Your task to perform on an android device: What's on my calendar tomorrow? Image 0: 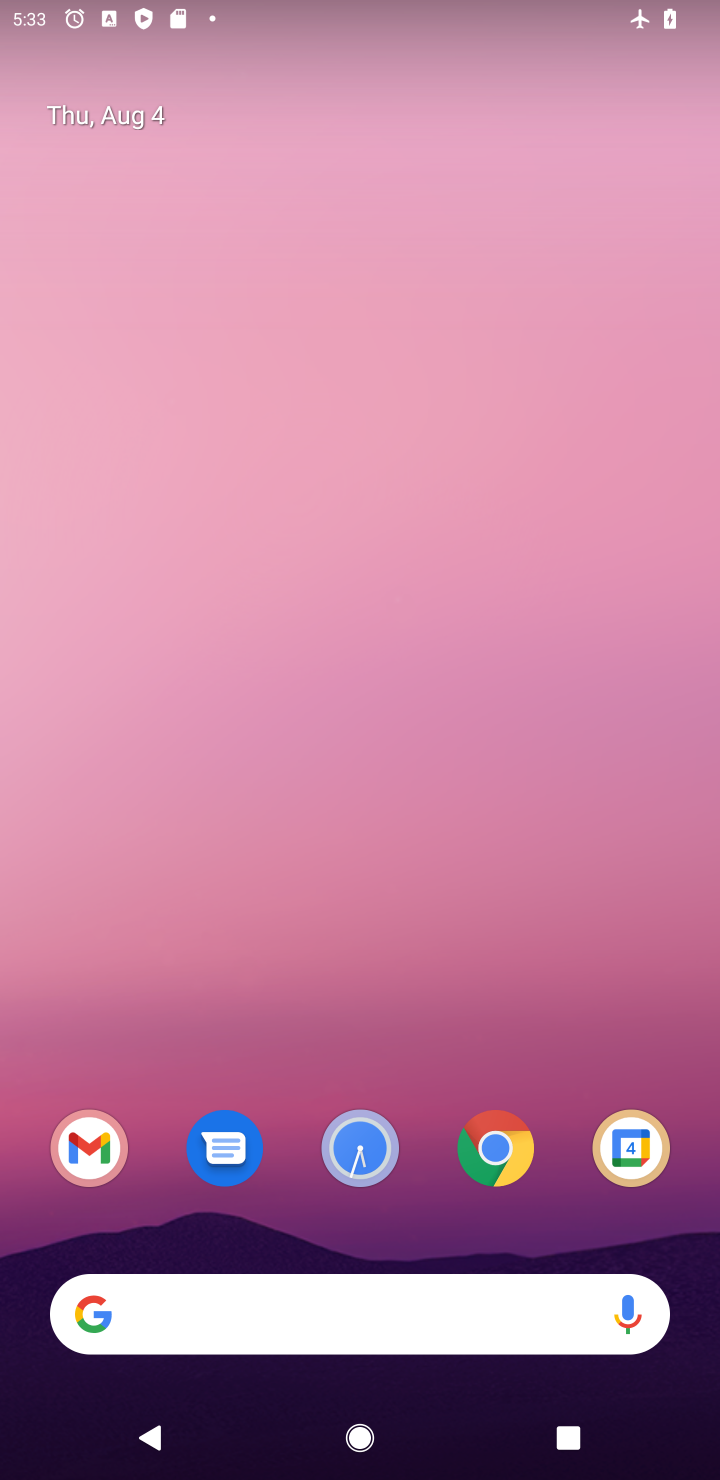
Step 0: drag from (582, 1233) to (544, 290)
Your task to perform on an android device: What's on my calendar tomorrow? Image 1: 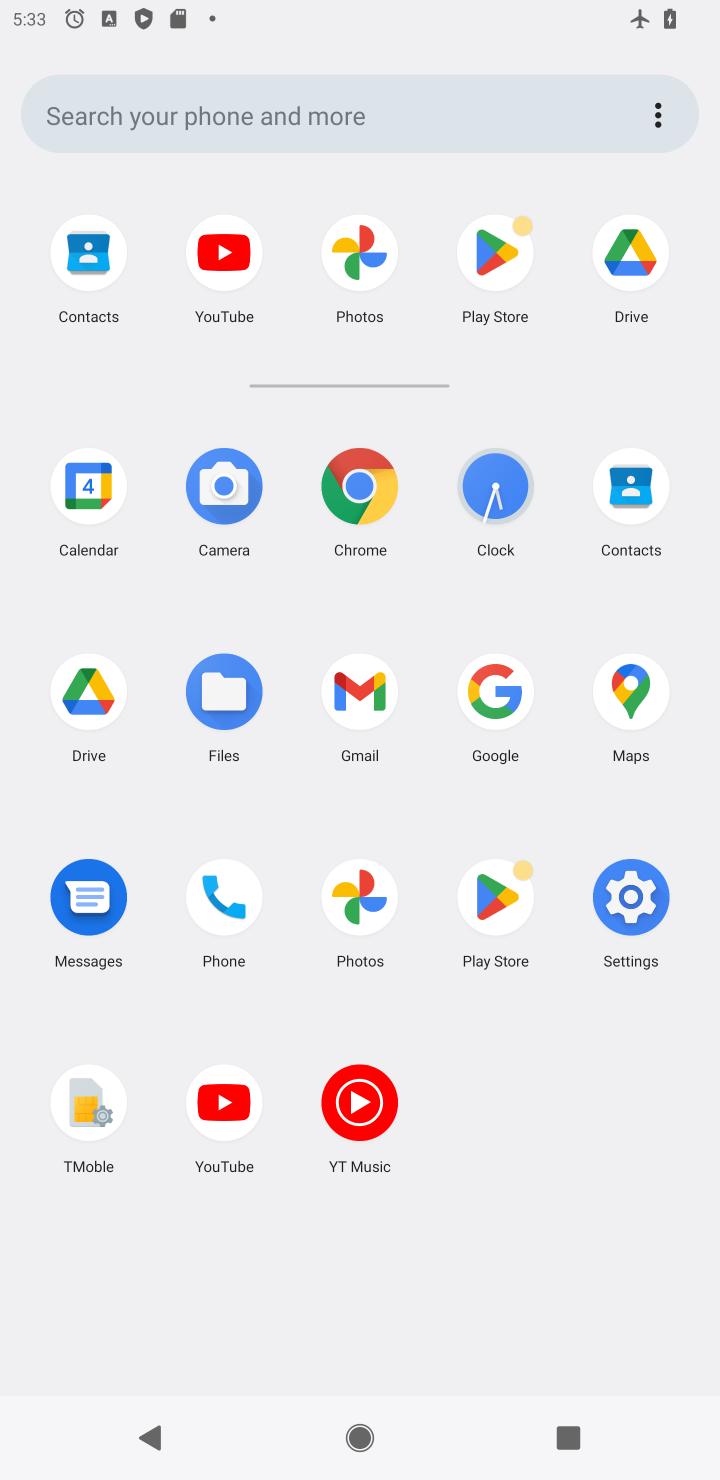
Step 1: click (86, 488)
Your task to perform on an android device: What's on my calendar tomorrow? Image 2: 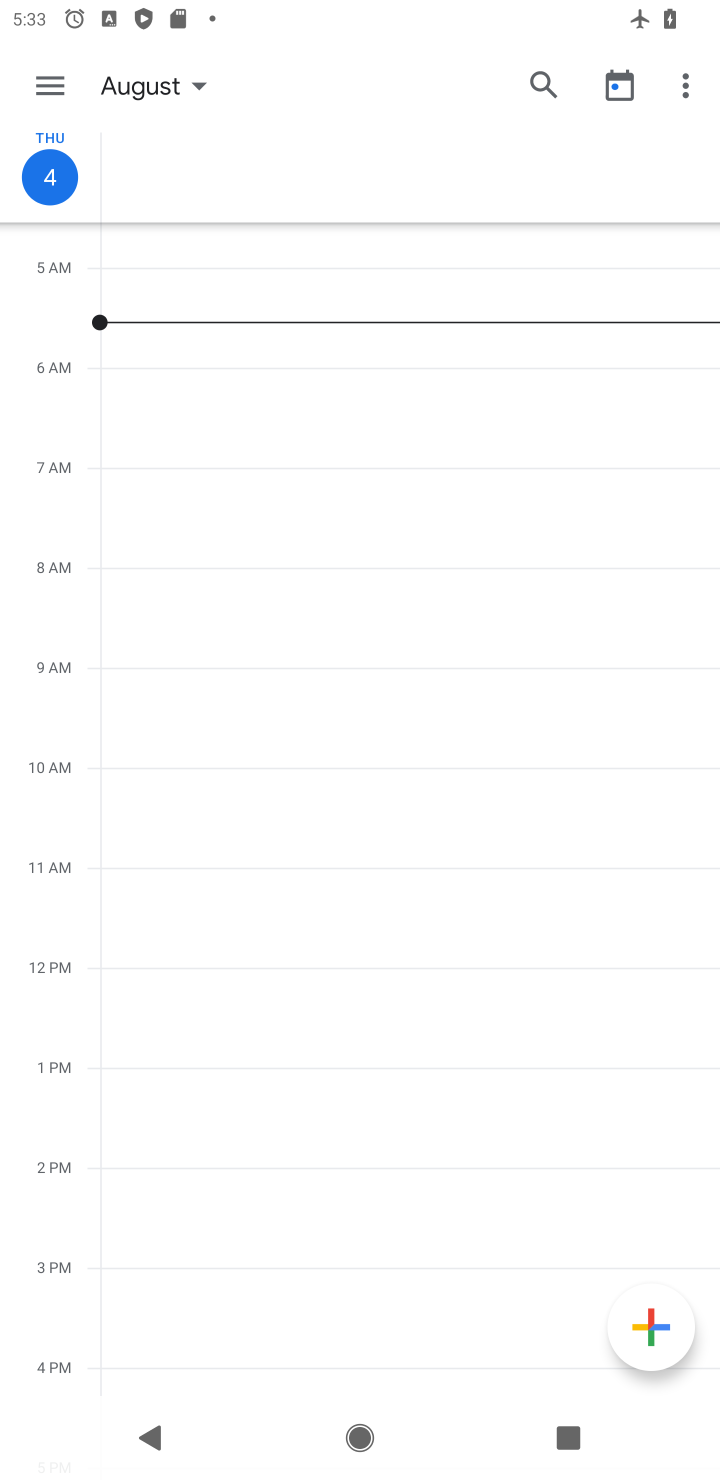
Step 2: click (188, 85)
Your task to perform on an android device: What's on my calendar tomorrow? Image 3: 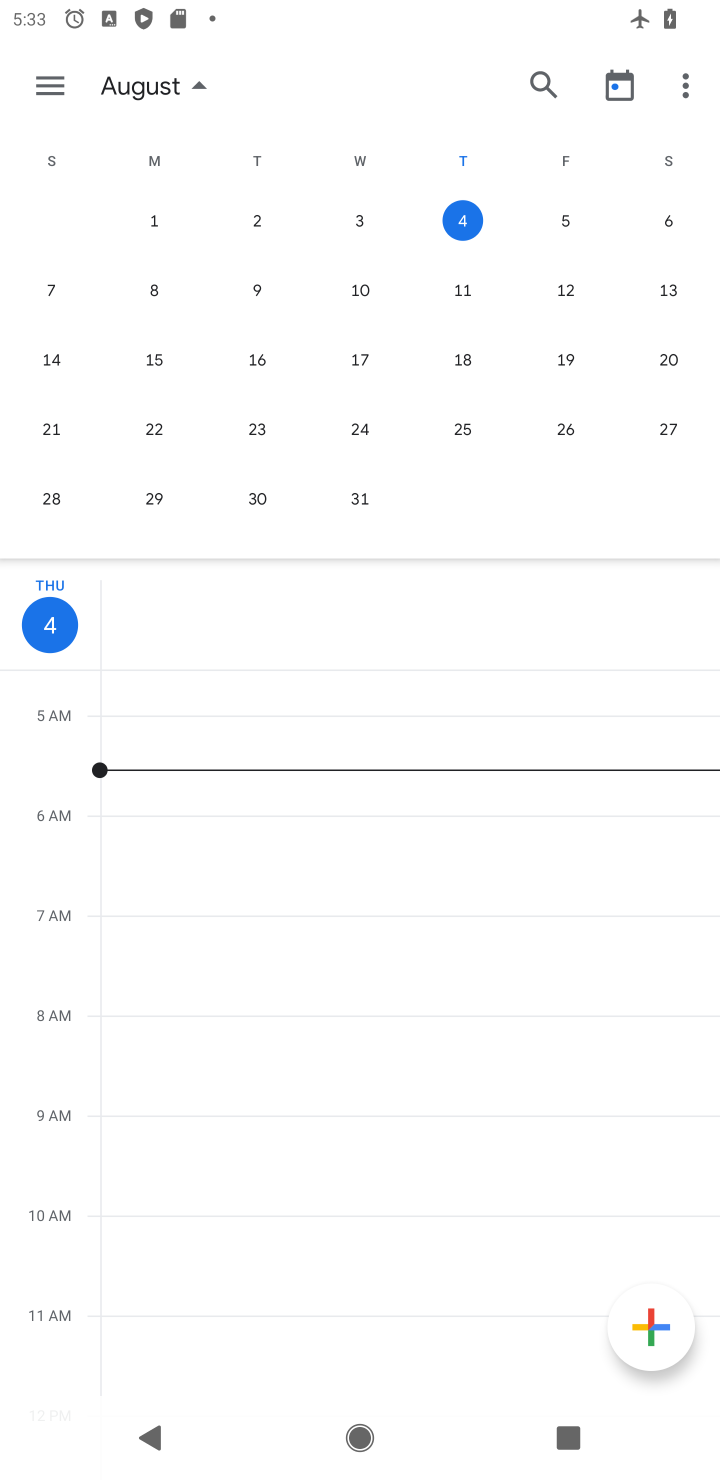
Step 3: click (562, 214)
Your task to perform on an android device: What's on my calendar tomorrow? Image 4: 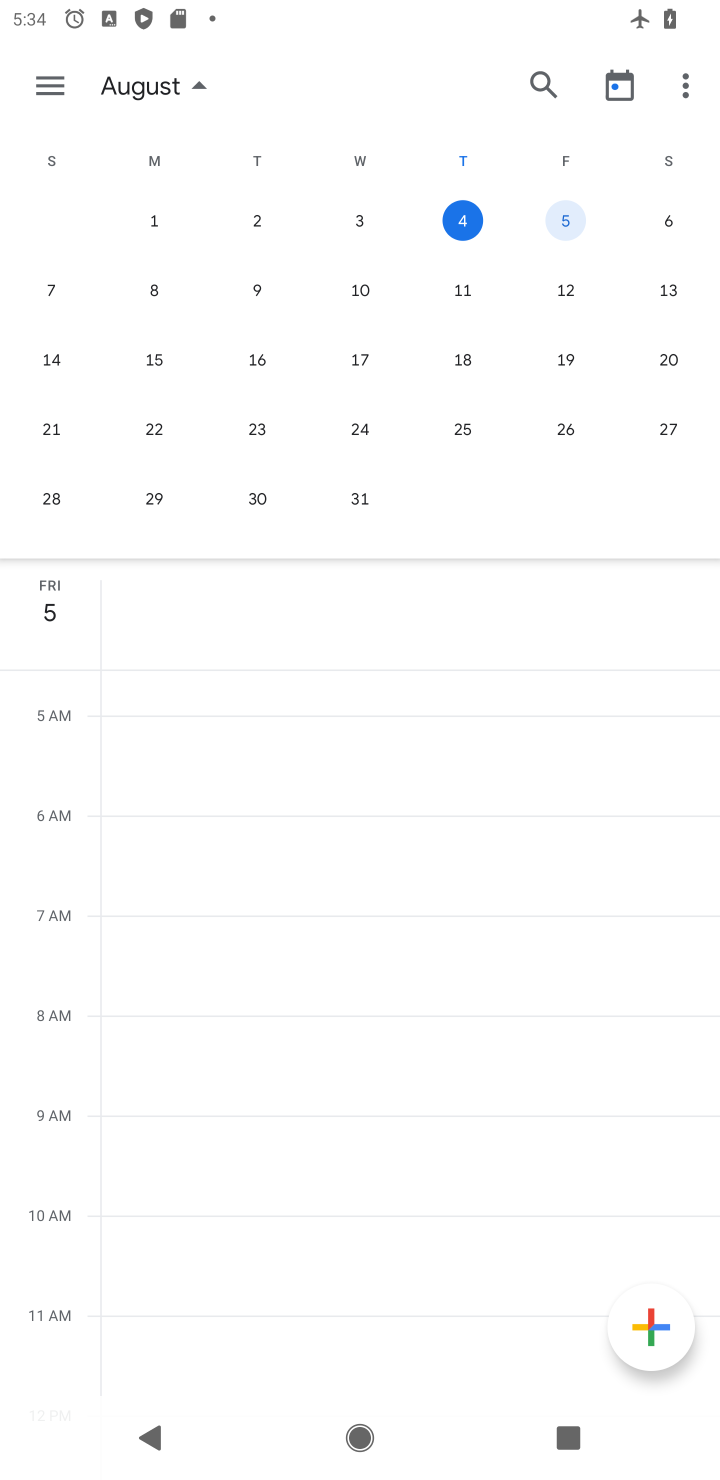
Step 4: task complete